Your task to perform on an android device: open the mobile data screen to see how much data has been used Image 0: 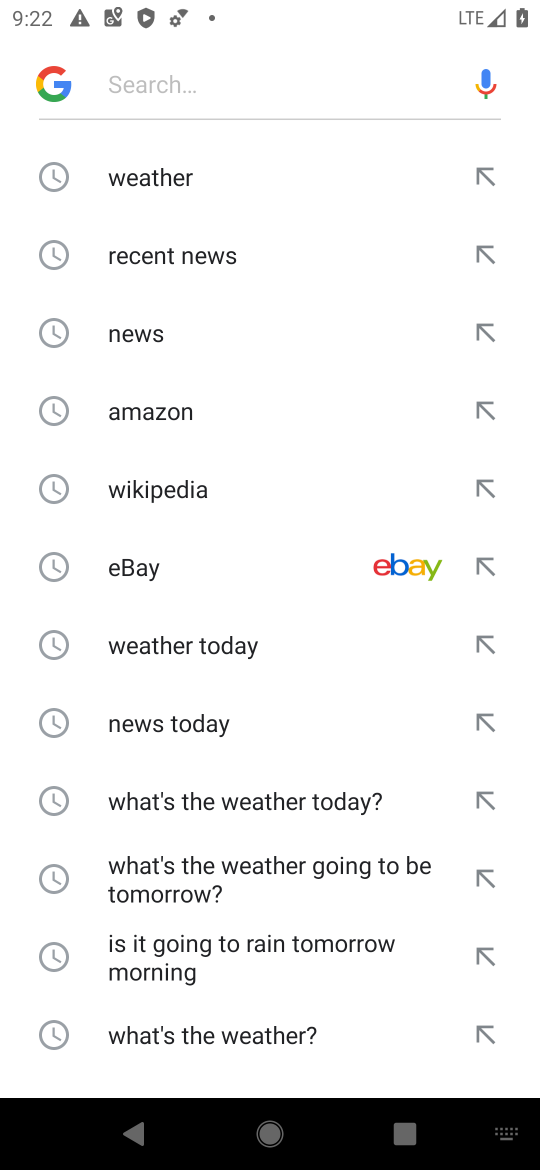
Step 0: press home button
Your task to perform on an android device: open the mobile data screen to see how much data has been used Image 1: 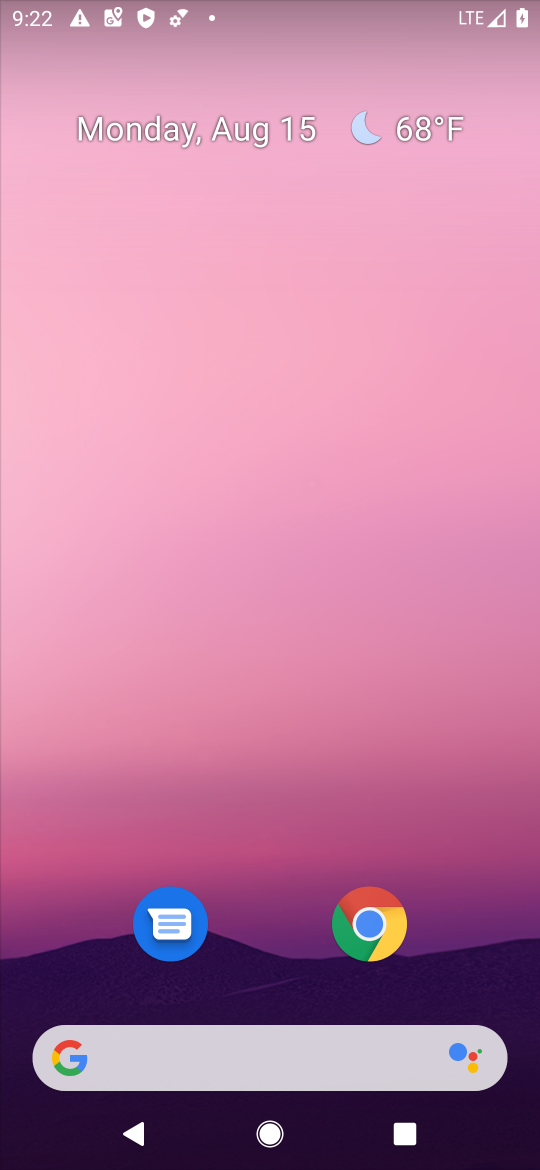
Step 1: drag from (493, 977) to (408, 150)
Your task to perform on an android device: open the mobile data screen to see how much data has been used Image 2: 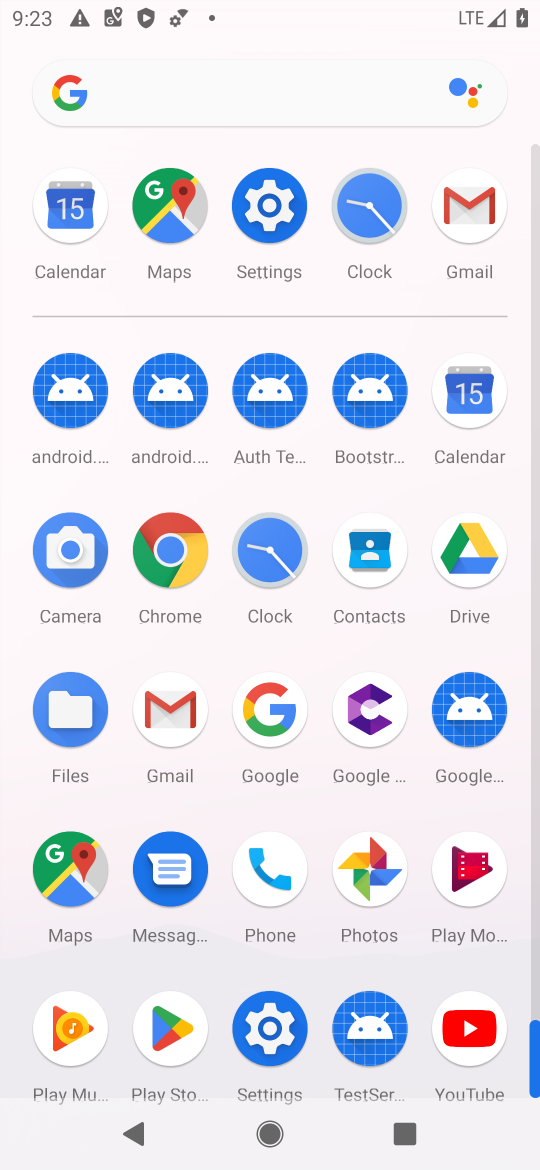
Step 2: click (271, 1027)
Your task to perform on an android device: open the mobile data screen to see how much data has been used Image 3: 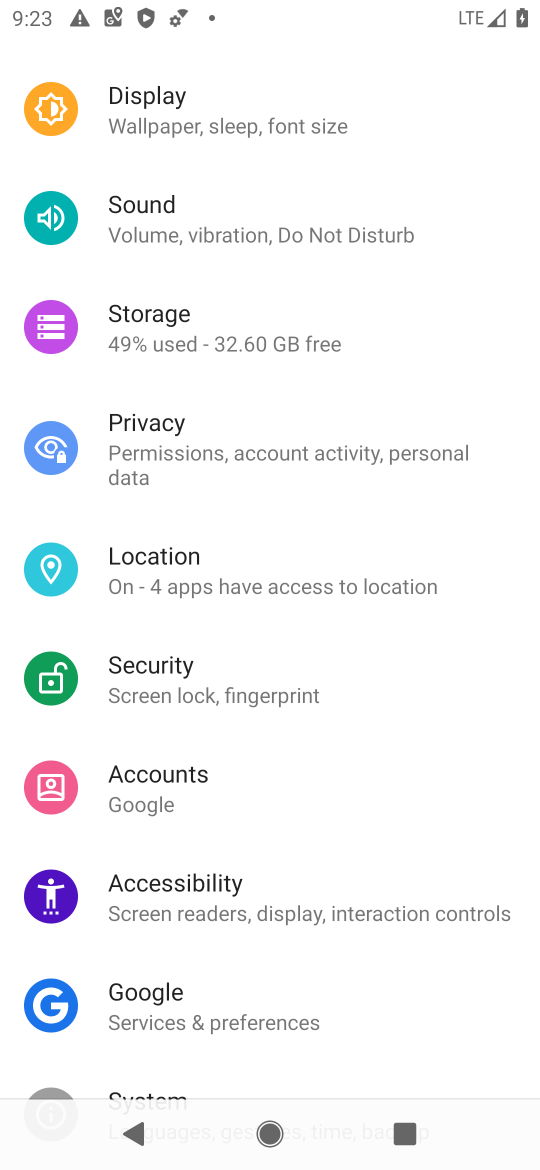
Step 3: drag from (451, 251) to (479, 666)
Your task to perform on an android device: open the mobile data screen to see how much data has been used Image 4: 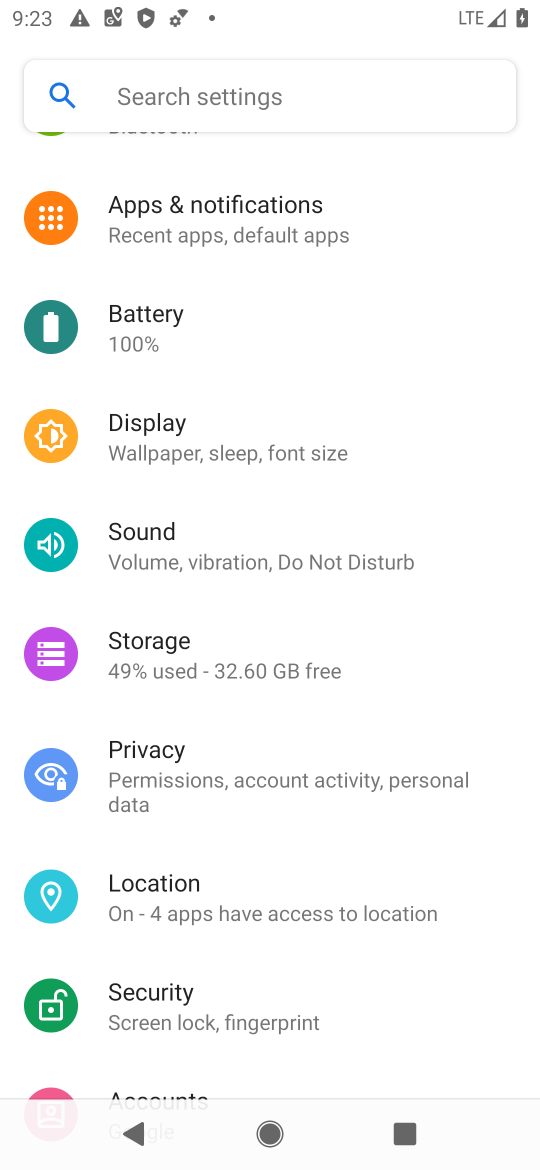
Step 4: drag from (394, 308) to (438, 795)
Your task to perform on an android device: open the mobile data screen to see how much data has been used Image 5: 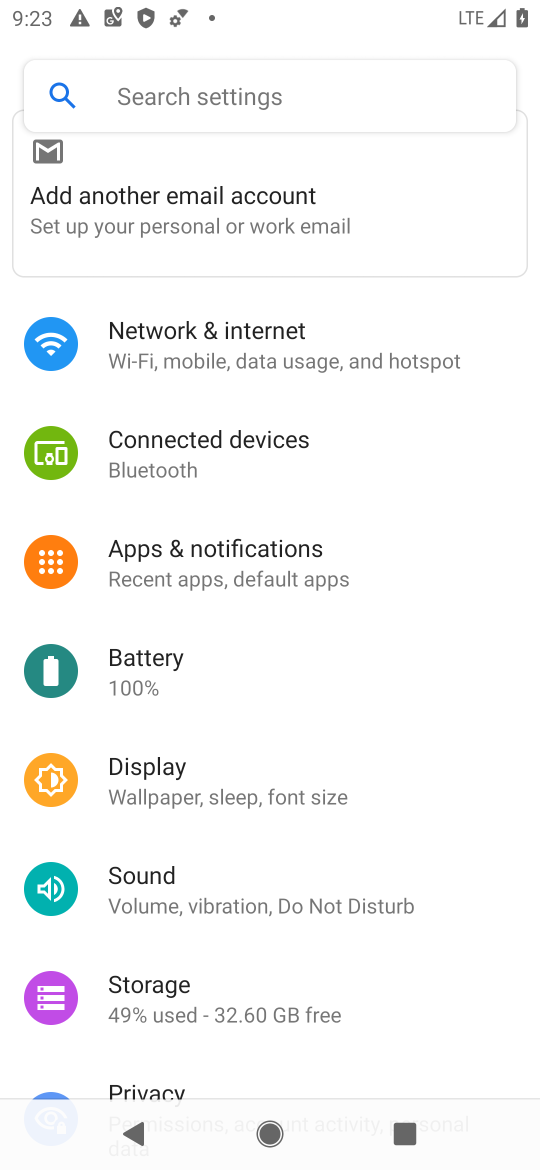
Step 5: click (172, 330)
Your task to perform on an android device: open the mobile data screen to see how much data has been used Image 6: 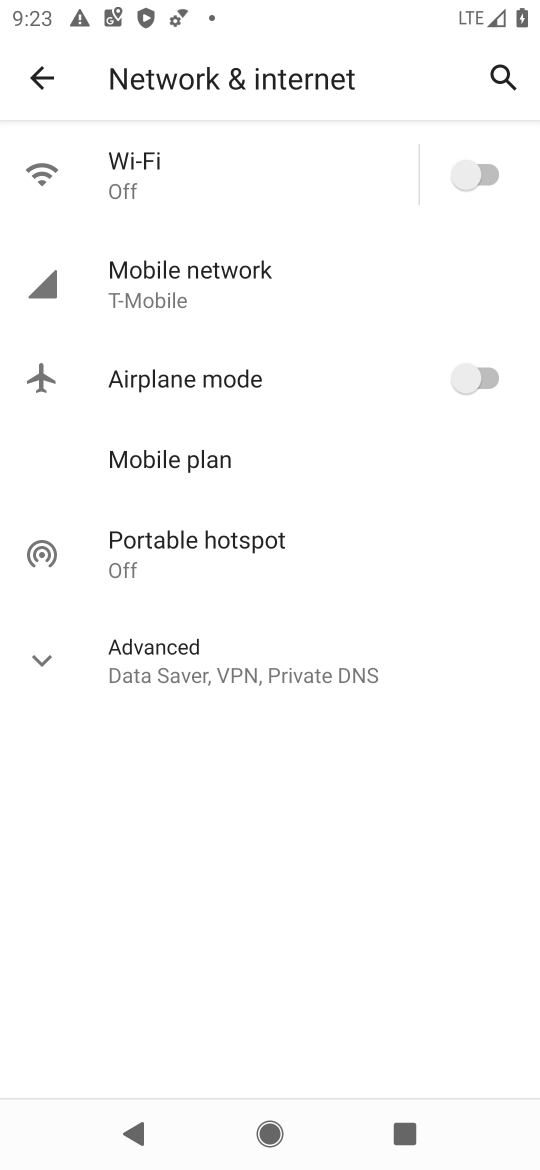
Step 6: click (170, 283)
Your task to perform on an android device: open the mobile data screen to see how much data has been used Image 7: 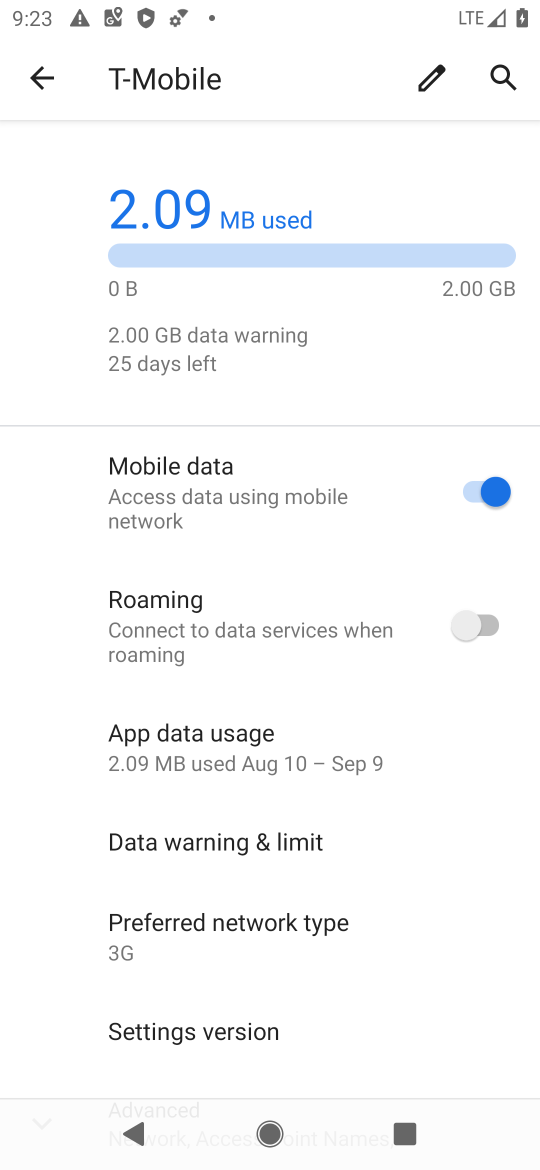
Step 7: task complete